Your task to perform on an android device: Open privacy settings Image 0: 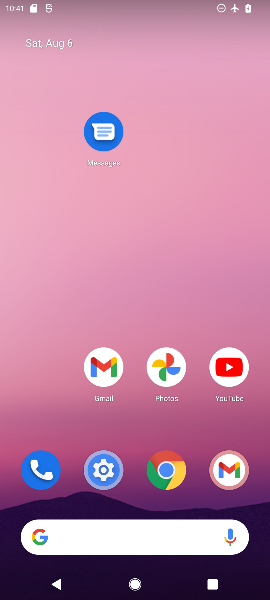
Step 0: drag from (144, 569) to (81, 5)
Your task to perform on an android device: Open privacy settings Image 1: 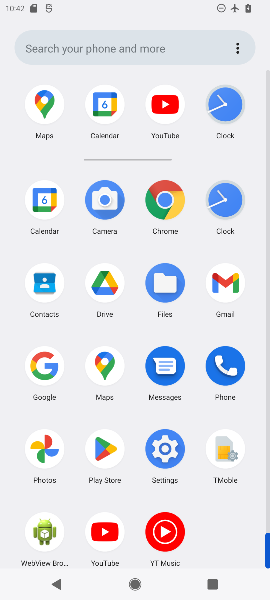
Step 1: click (172, 454)
Your task to perform on an android device: Open privacy settings Image 2: 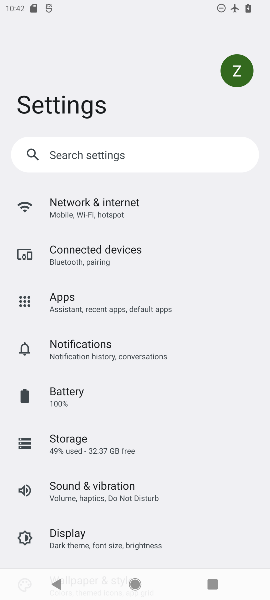
Step 2: drag from (124, 461) to (126, 189)
Your task to perform on an android device: Open privacy settings Image 3: 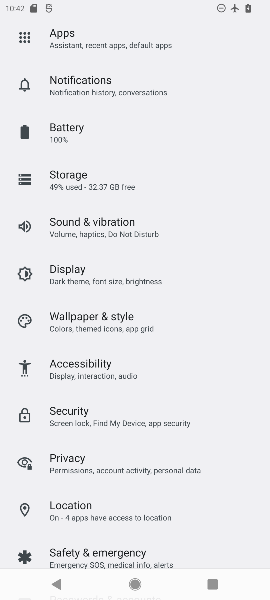
Step 3: click (117, 459)
Your task to perform on an android device: Open privacy settings Image 4: 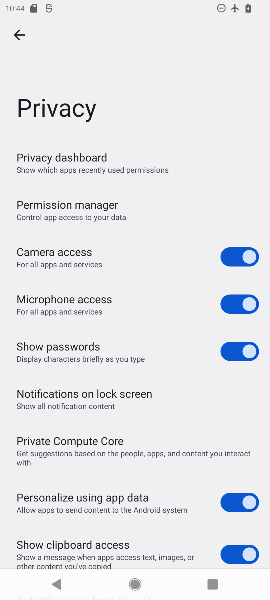
Step 4: task complete